Your task to perform on an android device: Go to CNN.com Image 0: 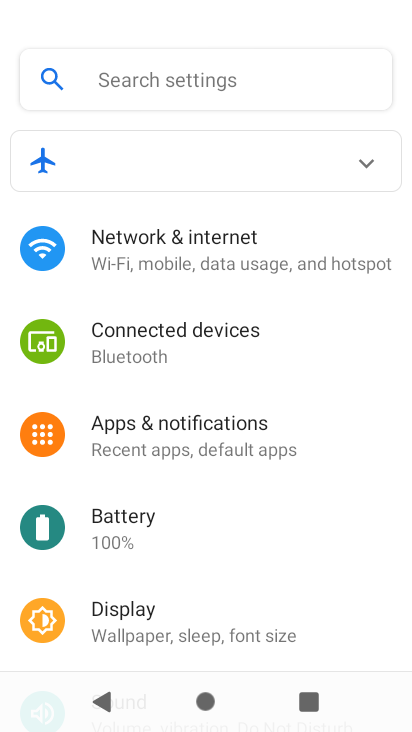
Step 0: press home button
Your task to perform on an android device: Go to CNN.com Image 1: 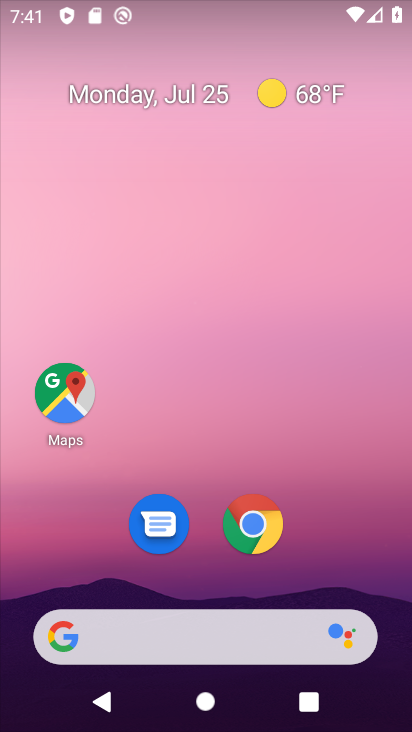
Step 1: click (183, 632)
Your task to perform on an android device: Go to CNN.com Image 2: 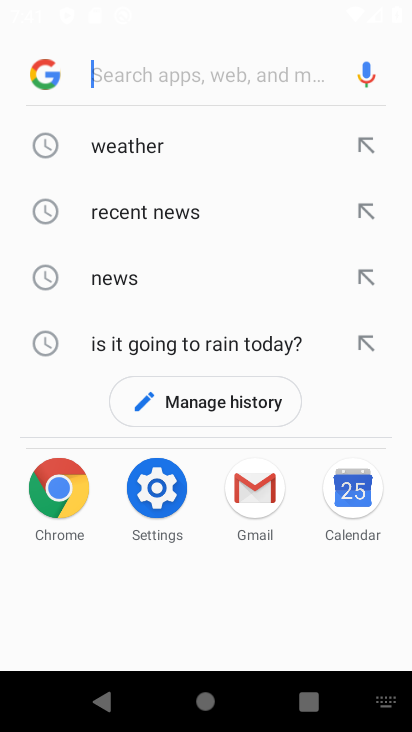
Step 2: type "cnn.com"
Your task to perform on an android device: Go to CNN.com Image 3: 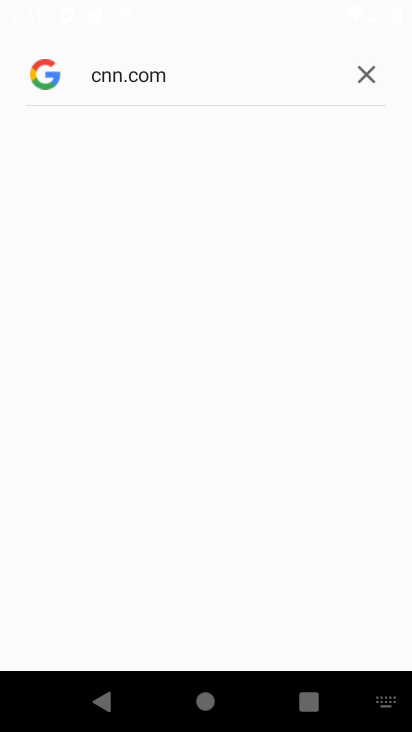
Step 3: task complete